Your task to perform on an android device: delete the emails in spam in the gmail app Image 0: 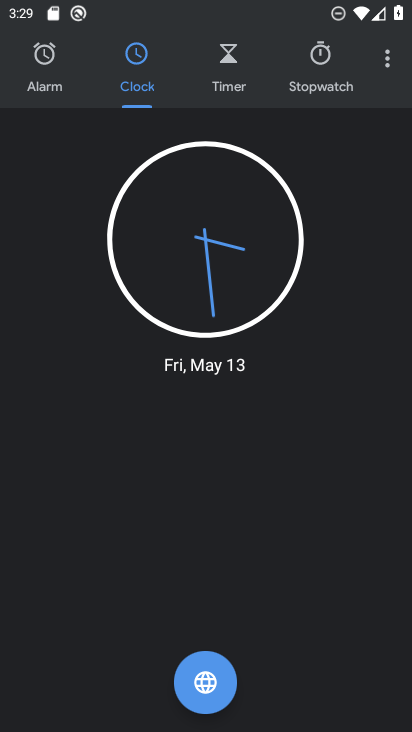
Step 0: click (340, 415)
Your task to perform on an android device: delete the emails in spam in the gmail app Image 1: 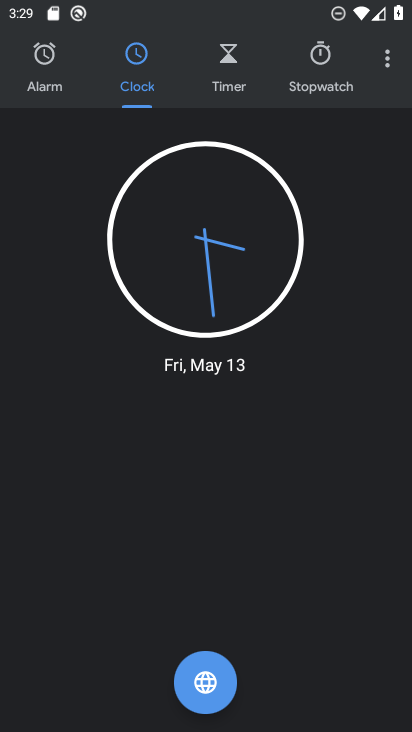
Step 1: press home button
Your task to perform on an android device: delete the emails in spam in the gmail app Image 2: 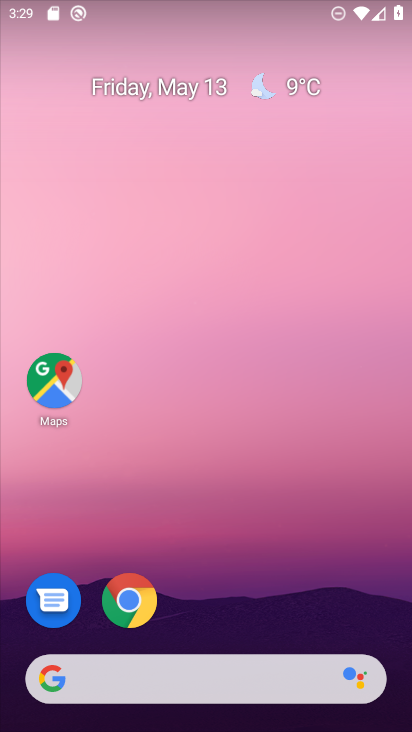
Step 2: drag from (187, 628) to (316, 105)
Your task to perform on an android device: delete the emails in spam in the gmail app Image 3: 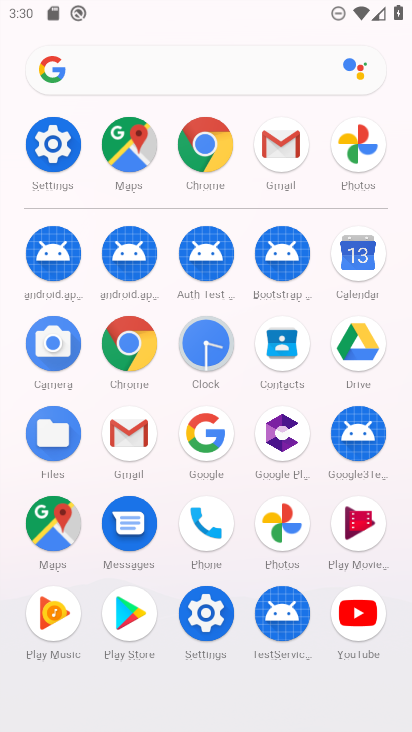
Step 3: click (136, 433)
Your task to perform on an android device: delete the emails in spam in the gmail app Image 4: 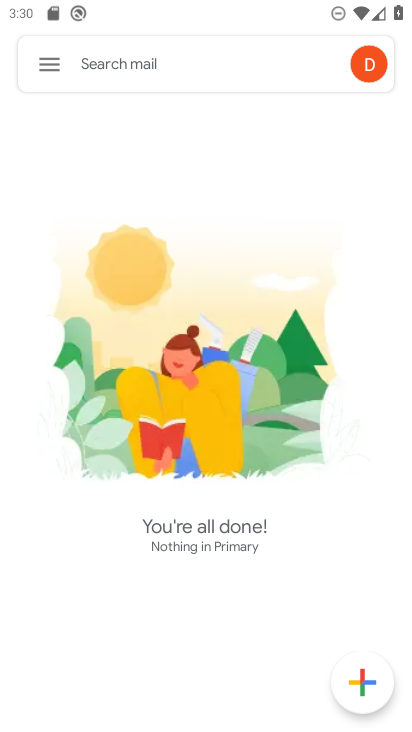
Step 4: click (52, 67)
Your task to perform on an android device: delete the emails in spam in the gmail app Image 5: 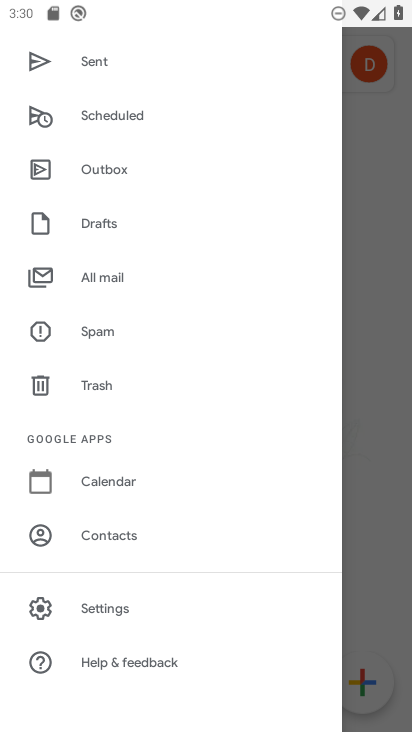
Step 5: drag from (195, 199) to (310, 644)
Your task to perform on an android device: delete the emails in spam in the gmail app Image 6: 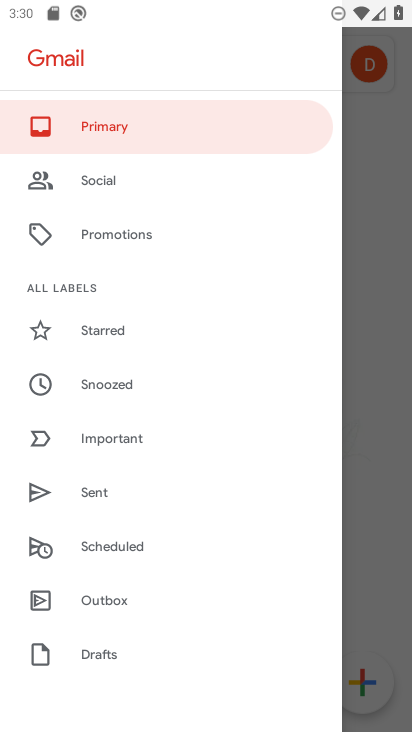
Step 6: drag from (117, 615) to (232, 210)
Your task to perform on an android device: delete the emails in spam in the gmail app Image 7: 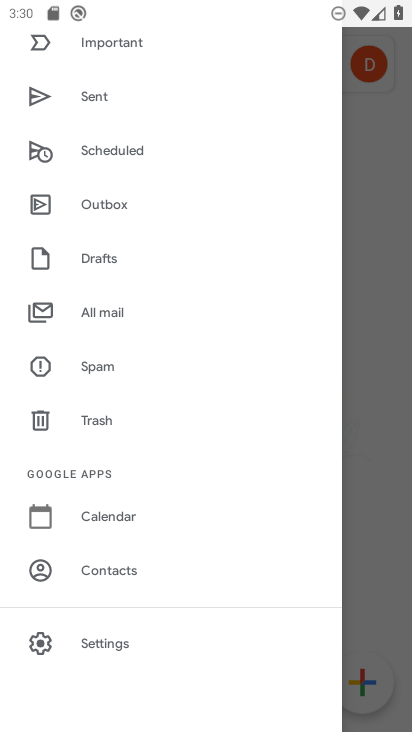
Step 7: click (122, 372)
Your task to perform on an android device: delete the emails in spam in the gmail app Image 8: 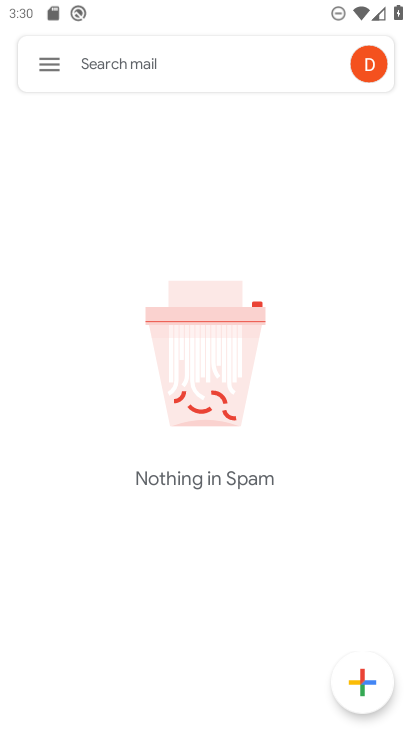
Step 8: task complete